Your task to perform on an android device: Search for top rated sushi restaurants on Maps Image 0: 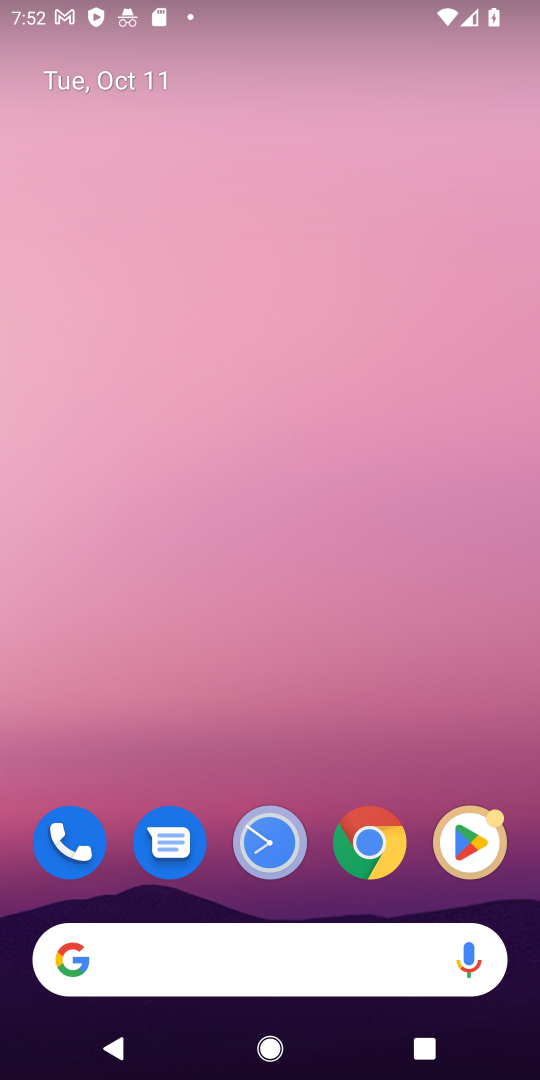
Step 0: drag from (279, 822) to (288, 378)
Your task to perform on an android device: Search for top rated sushi restaurants on Maps Image 1: 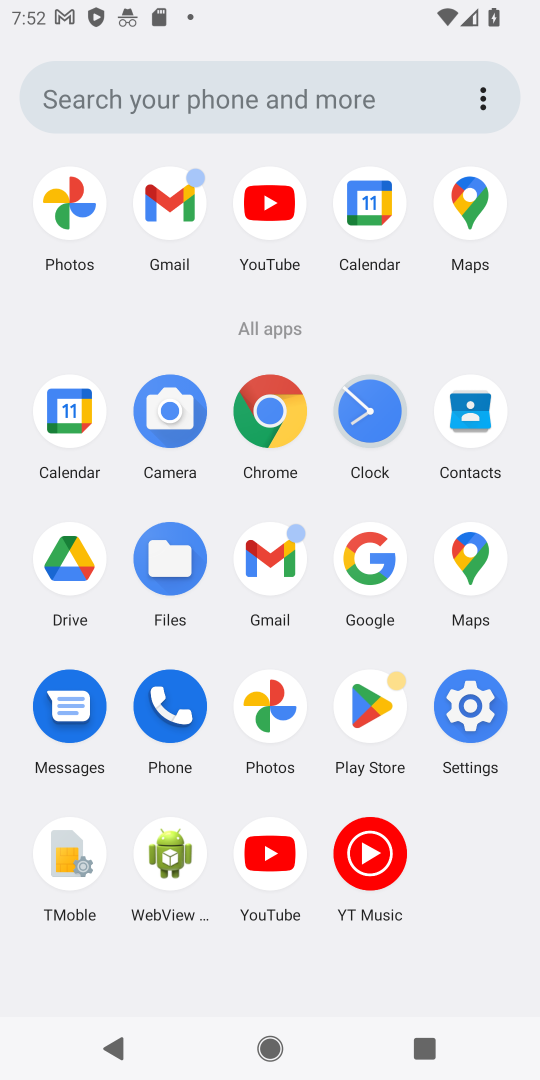
Step 1: click (459, 581)
Your task to perform on an android device: Search for top rated sushi restaurants on Maps Image 2: 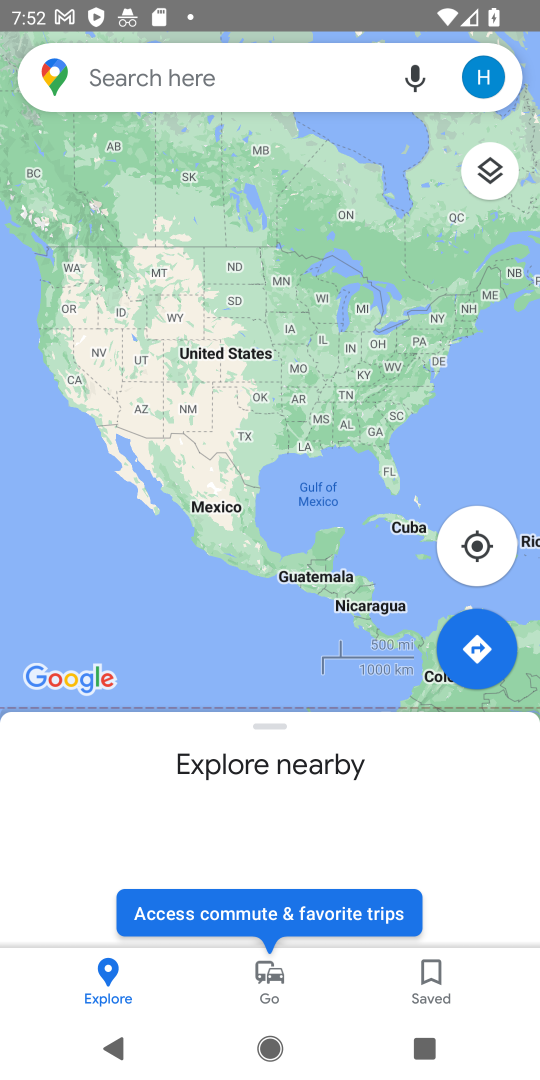
Step 2: click (215, 73)
Your task to perform on an android device: Search for top rated sushi restaurants on Maps Image 3: 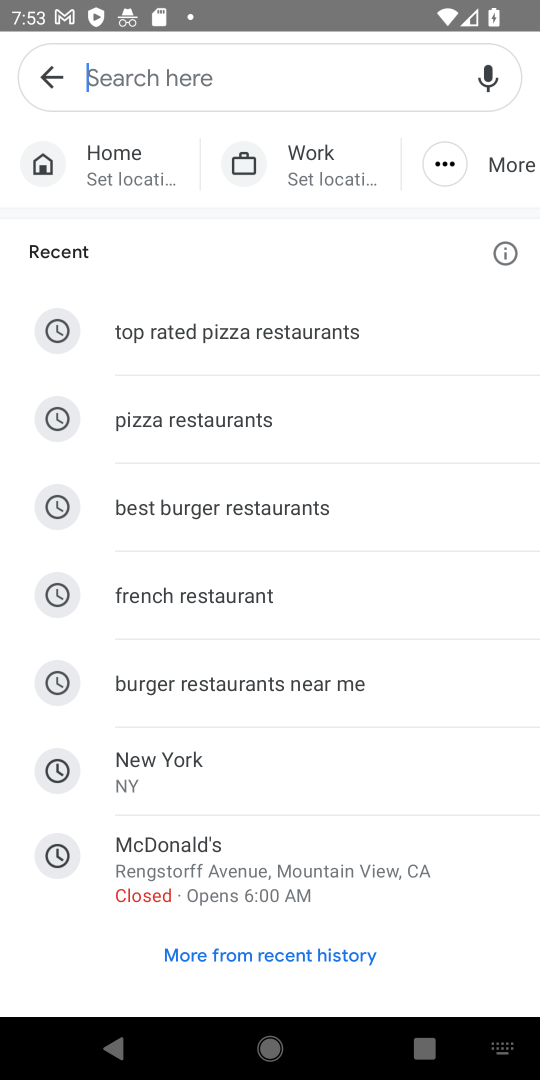
Step 3: type "sushi restaurants "
Your task to perform on an android device: Search for top rated sushi restaurants on Maps Image 4: 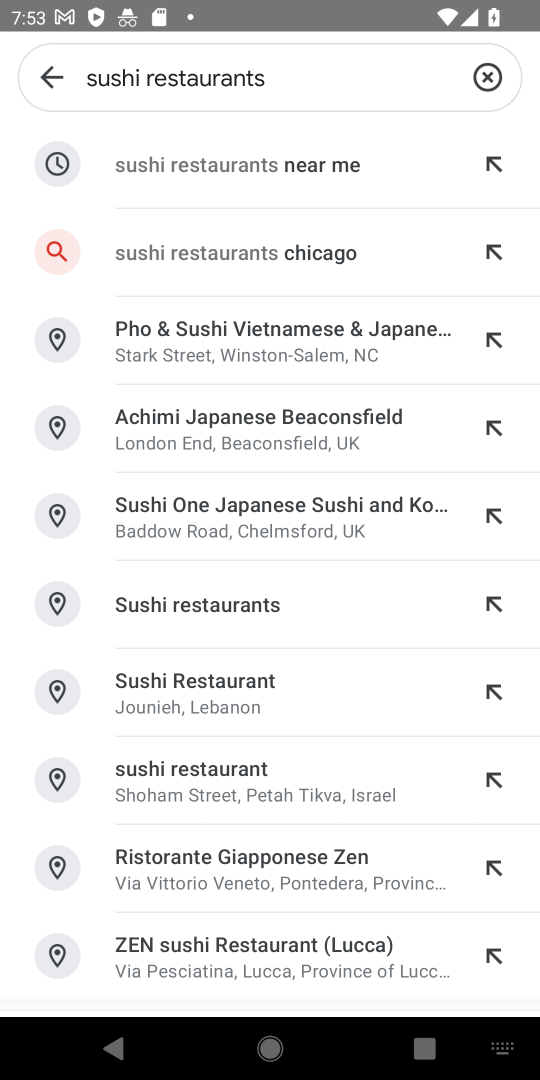
Step 4: click (239, 169)
Your task to perform on an android device: Search for top rated sushi restaurants on Maps Image 5: 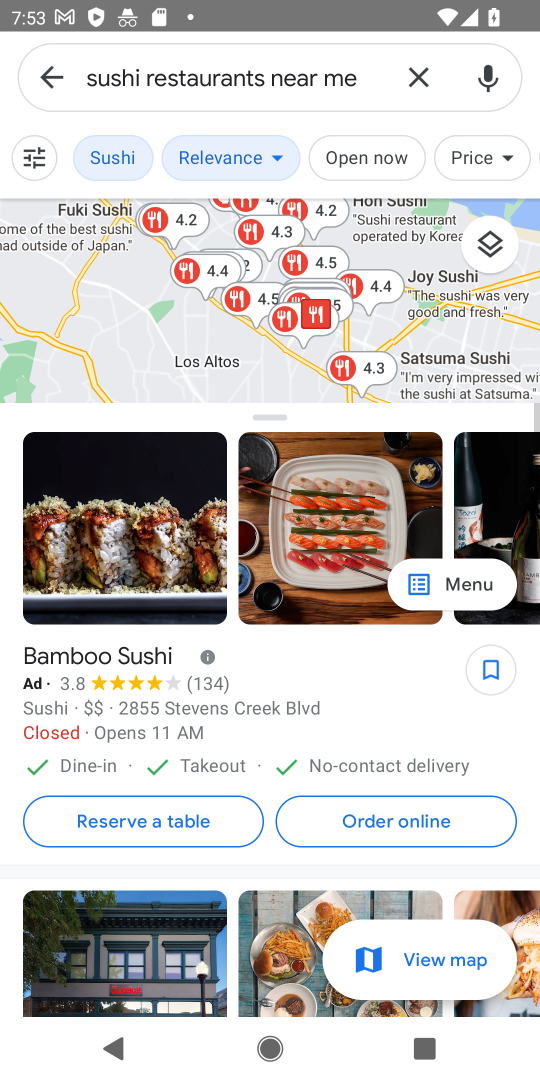
Step 5: task complete